Your task to perform on an android device: Open my contact list Image 0: 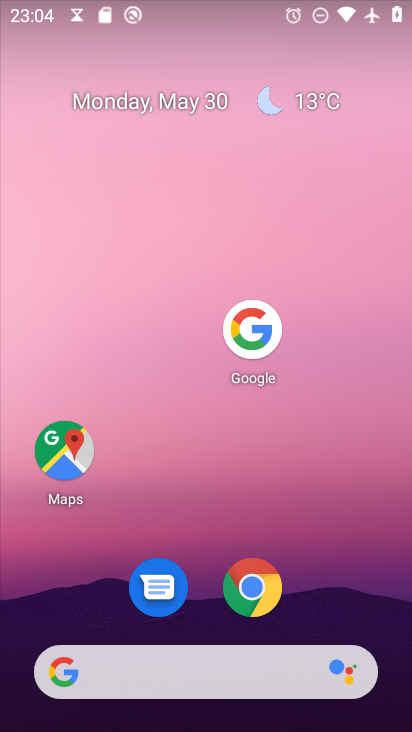
Step 0: press home button
Your task to perform on an android device: Open my contact list Image 1: 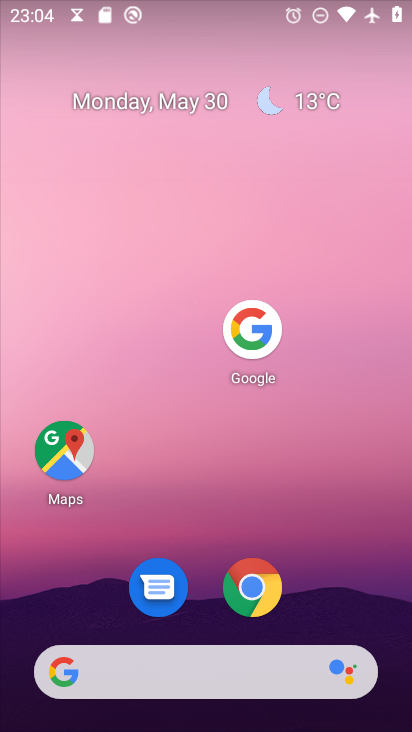
Step 1: drag from (236, 675) to (288, 173)
Your task to perform on an android device: Open my contact list Image 2: 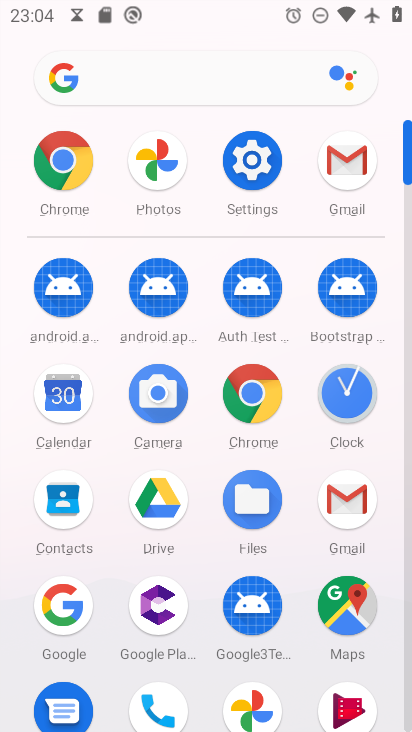
Step 2: click (65, 510)
Your task to perform on an android device: Open my contact list Image 3: 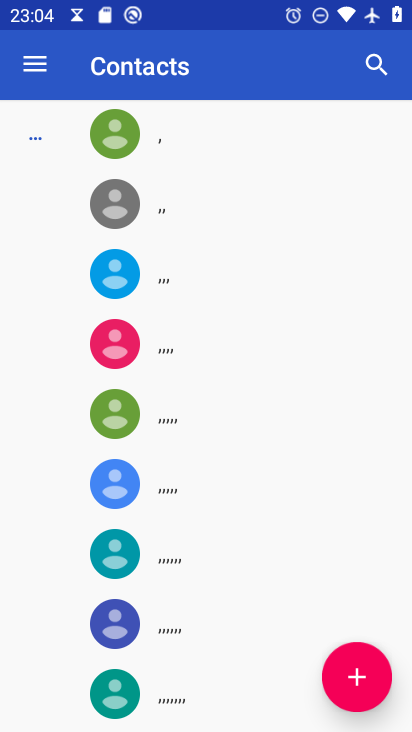
Step 3: task complete